Your task to perform on an android device: Go to location settings Image 0: 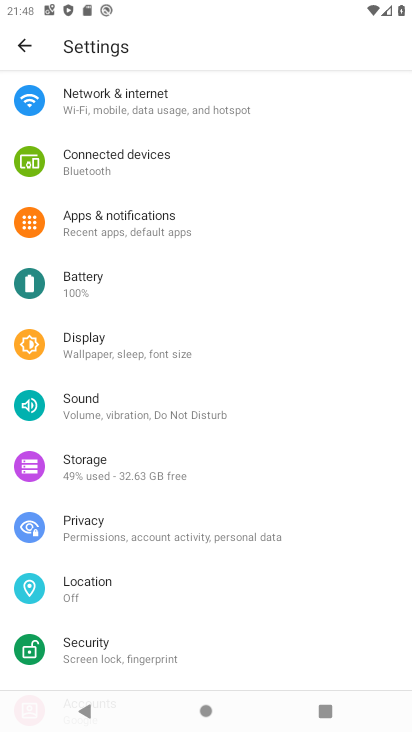
Step 0: click (80, 596)
Your task to perform on an android device: Go to location settings Image 1: 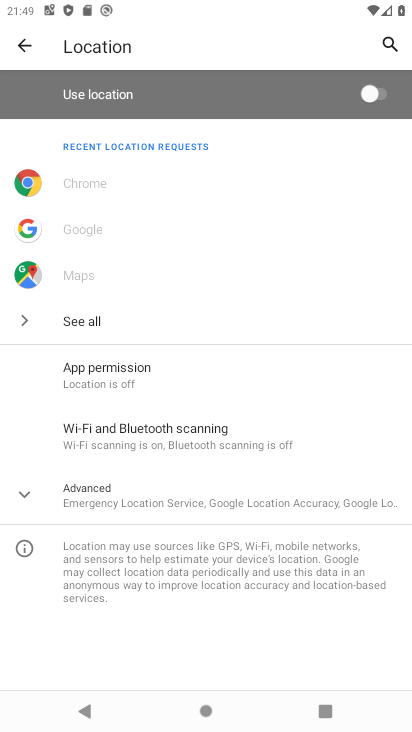
Step 1: task complete